Your task to perform on an android device: install app "Google Calendar" Image 0: 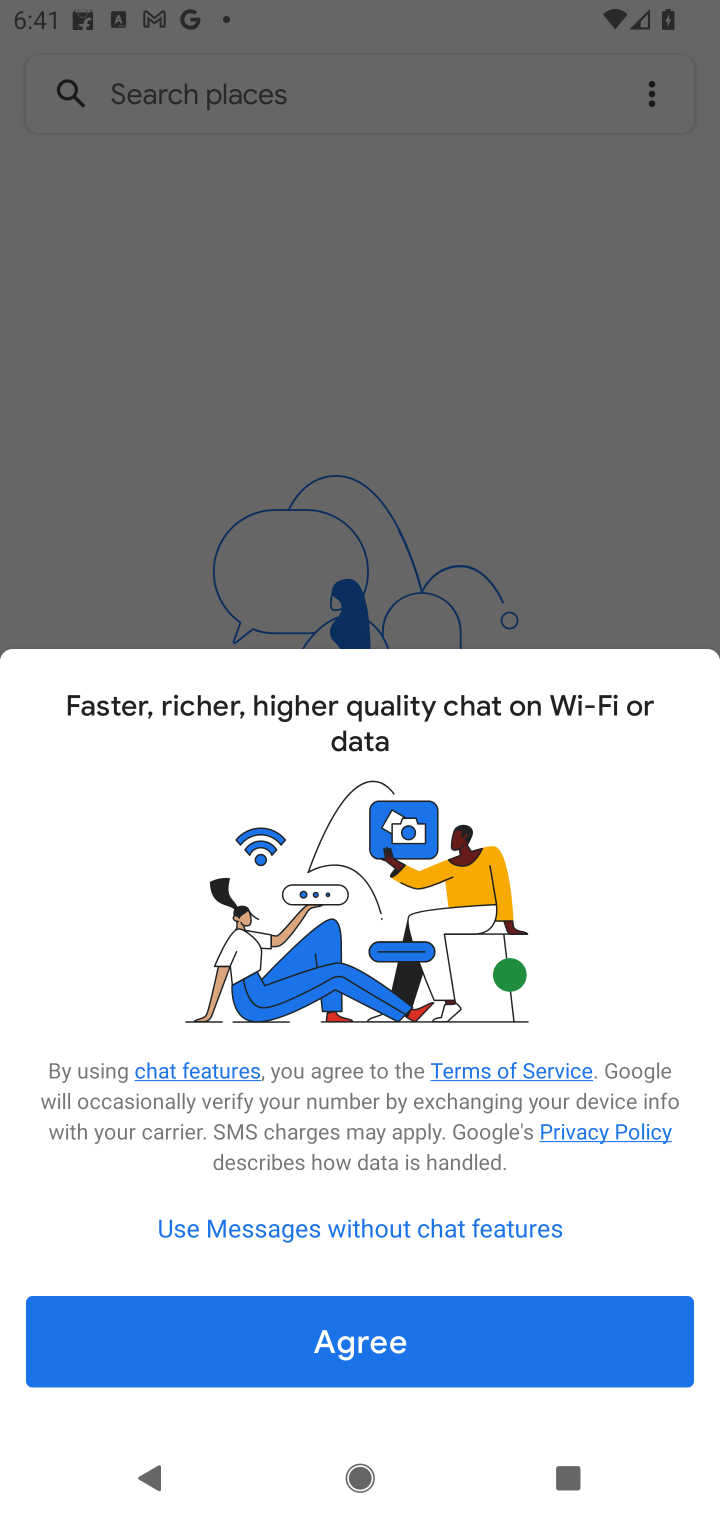
Step 0: press home button
Your task to perform on an android device: install app "Google Calendar" Image 1: 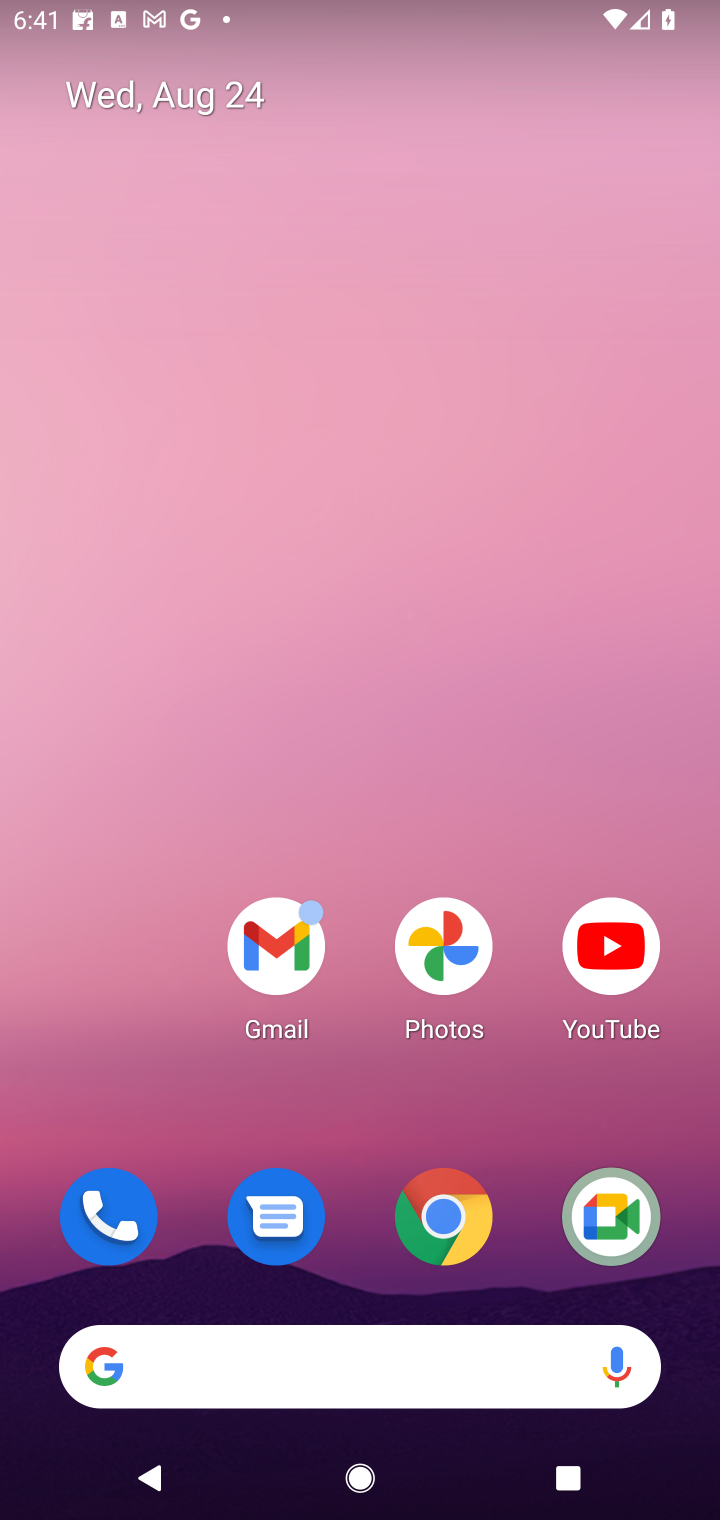
Step 1: drag from (362, 1099) to (440, 190)
Your task to perform on an android device: install app "Google Calendar" Image 2: 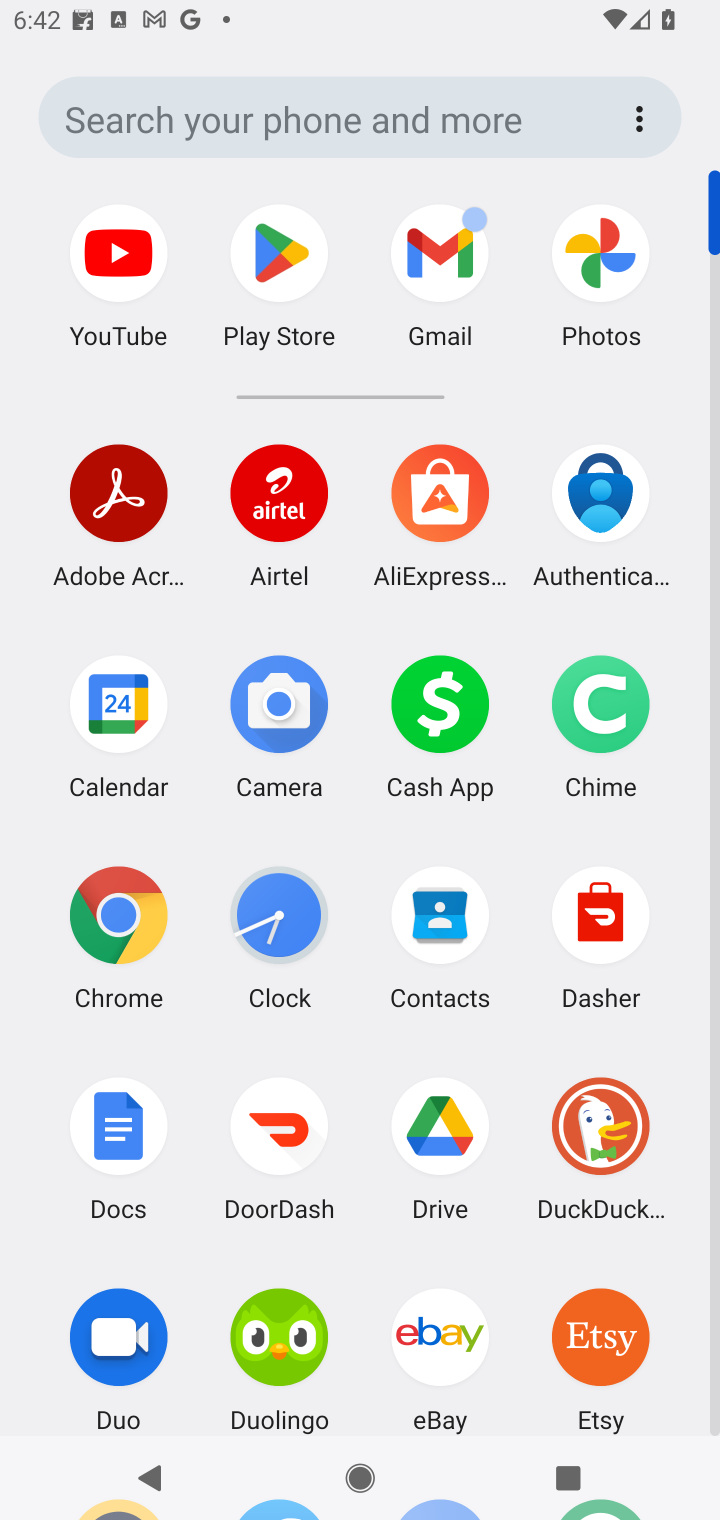
Step 2: click (283, 244)
Your task to perform on an android device: install app "Google Calendar" Image 3: 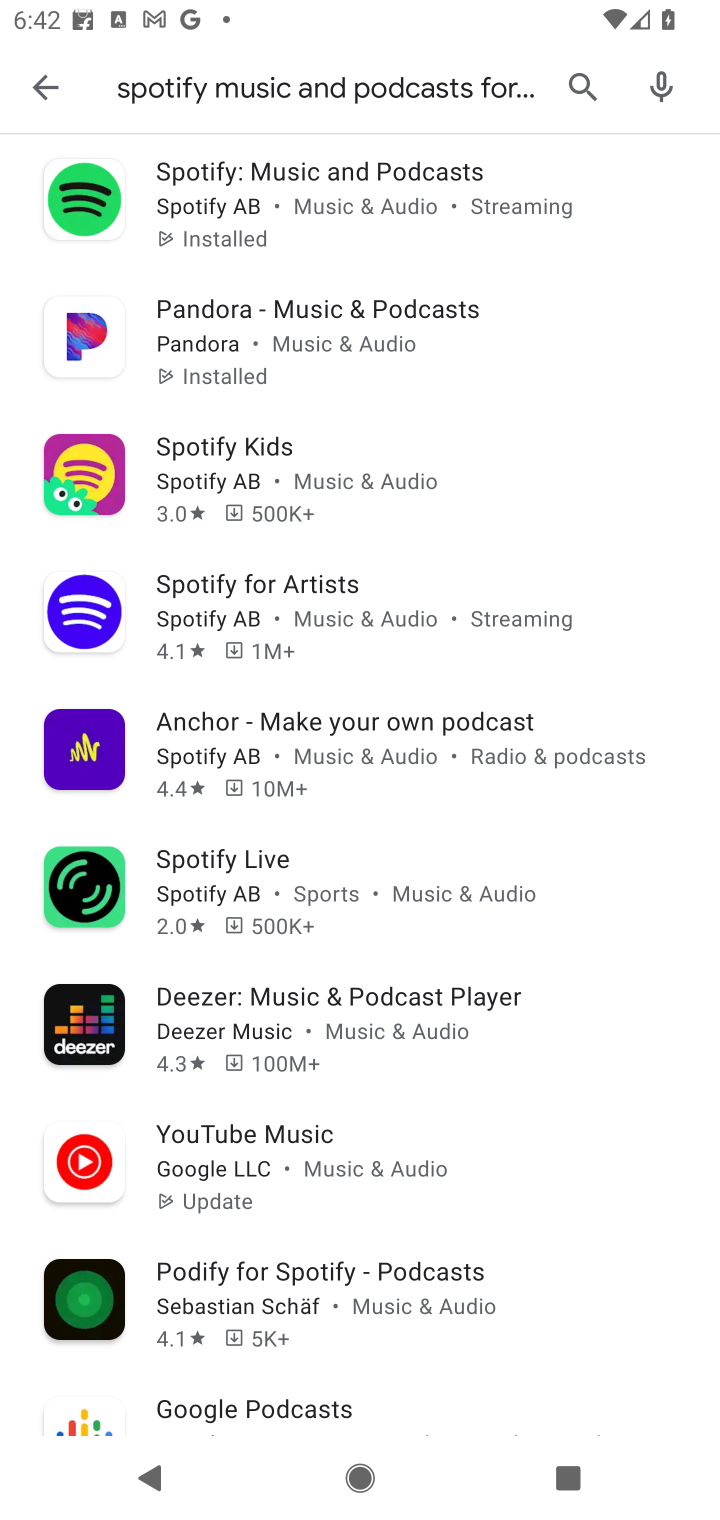
Step 3: click (566, 91)
Your task to perform on an android device: install app "Google Calendar" Image 4: 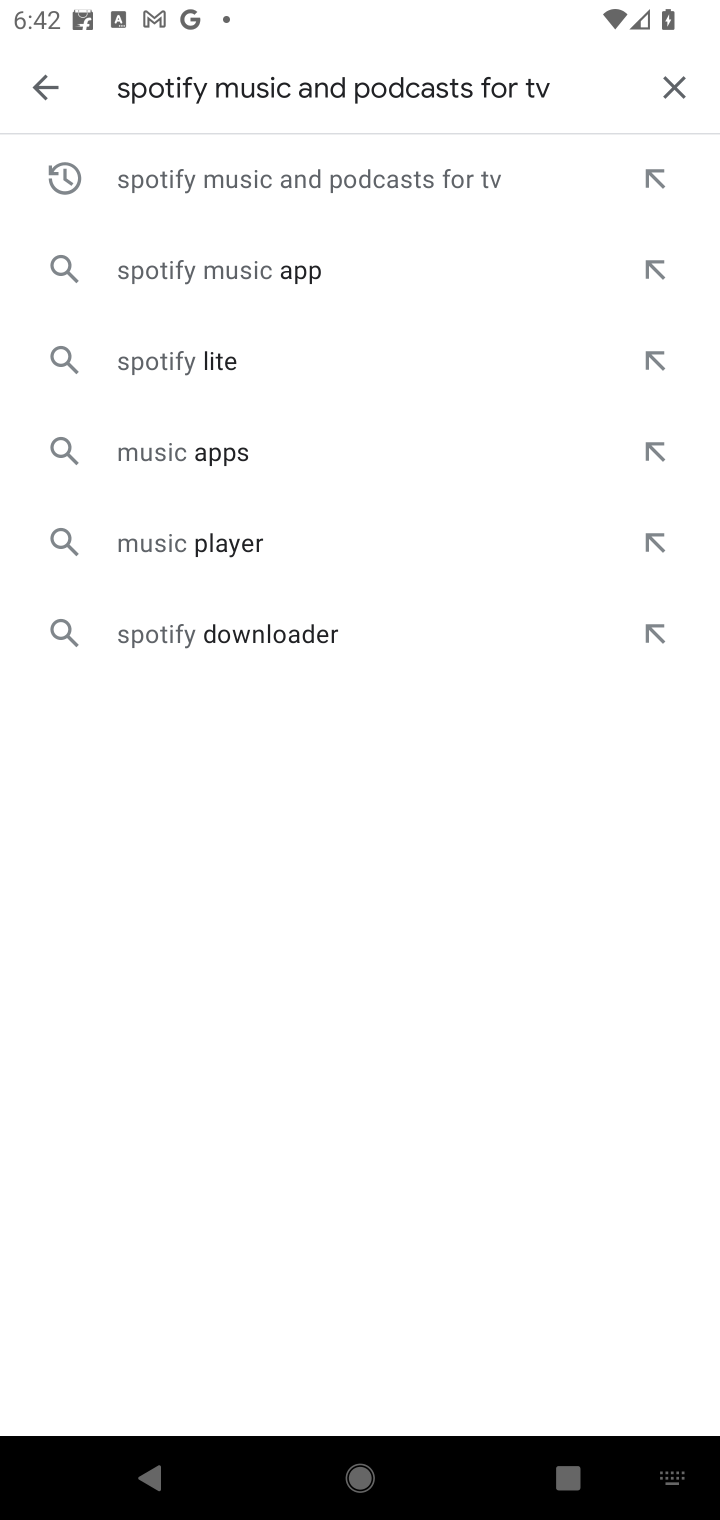
Step 4: click (680, 83)
Your task to perform on an android device: install app "Google Calendar" Image 5: 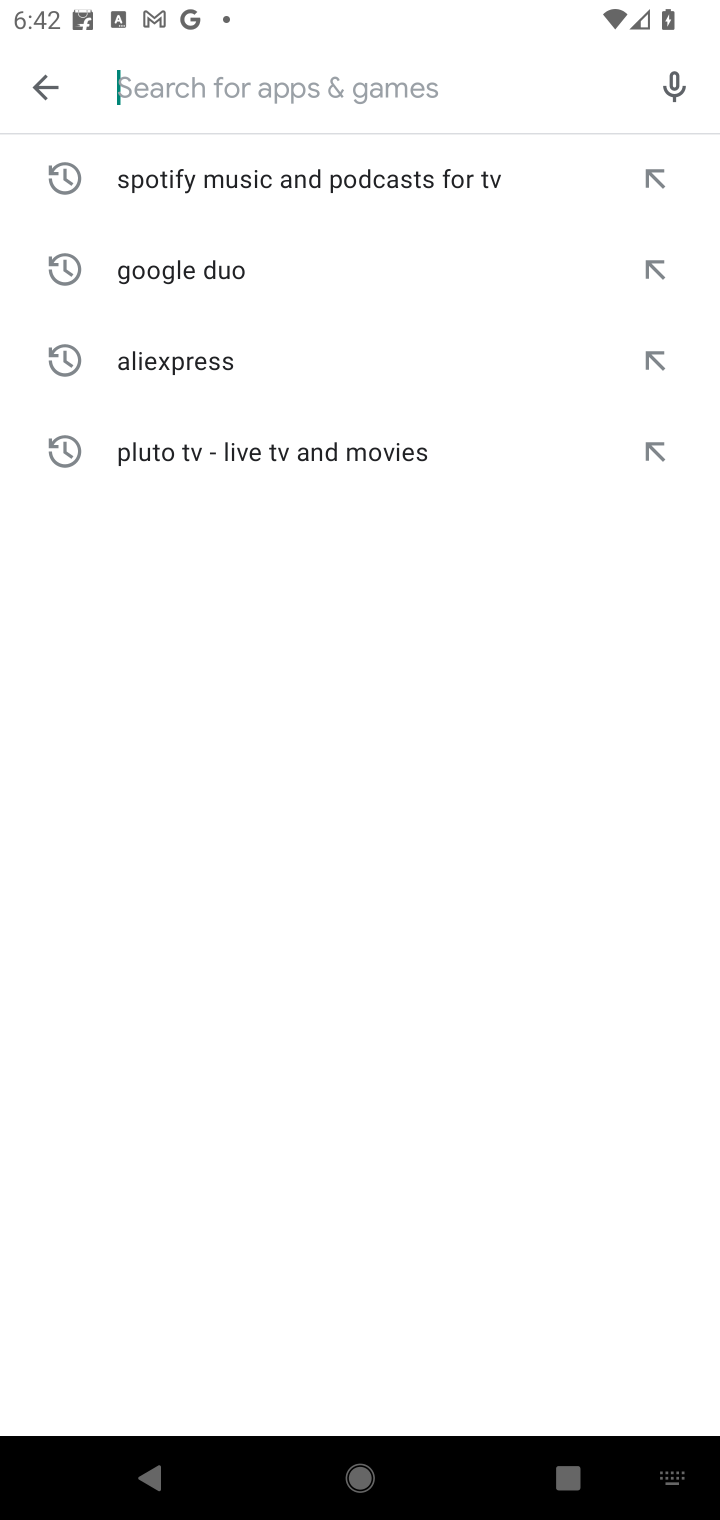
Step 5: type "Google Calendar"
Your task to perform on an android device: install app "Google Calendar" Image 6: 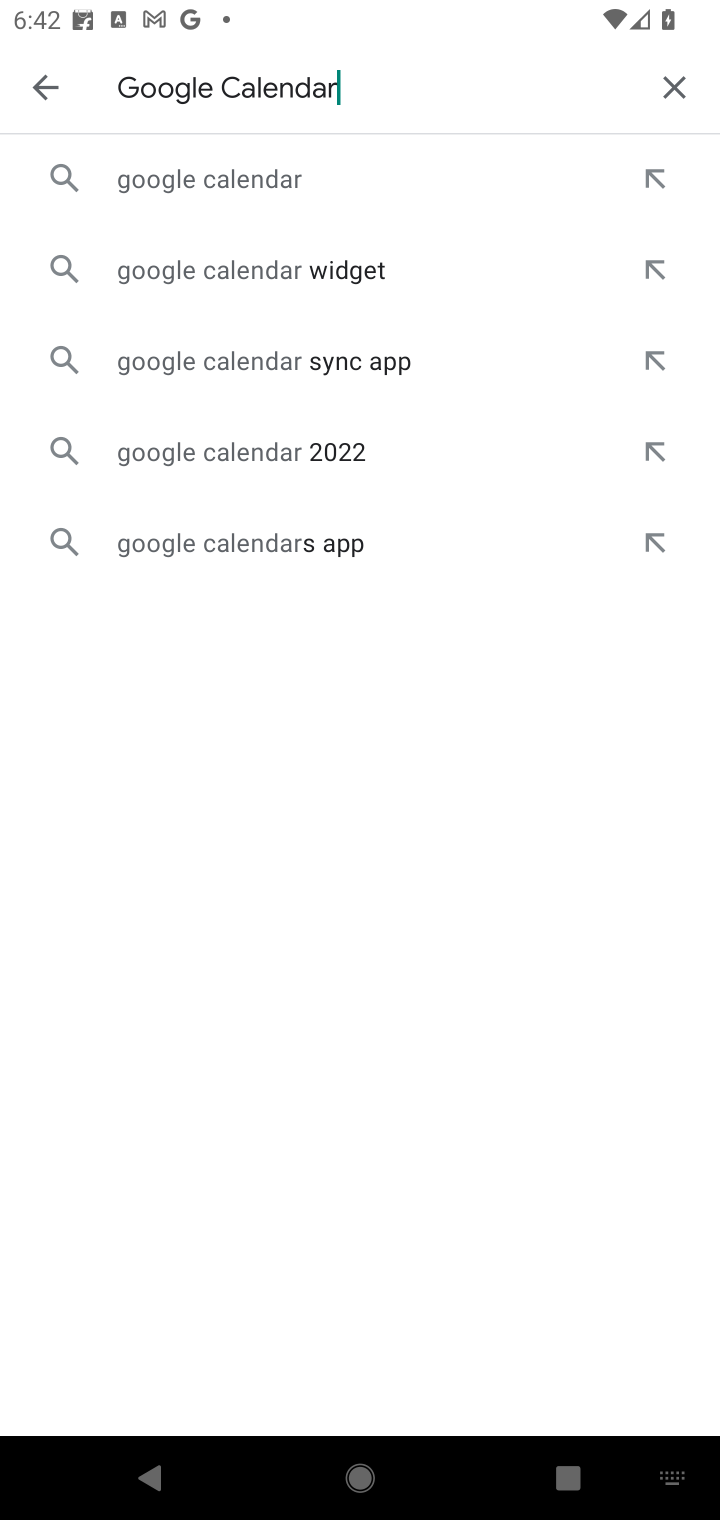
Step 6: click (406, 166)
Your task to perform on an android device: install app "Google Calendar" Image 7: 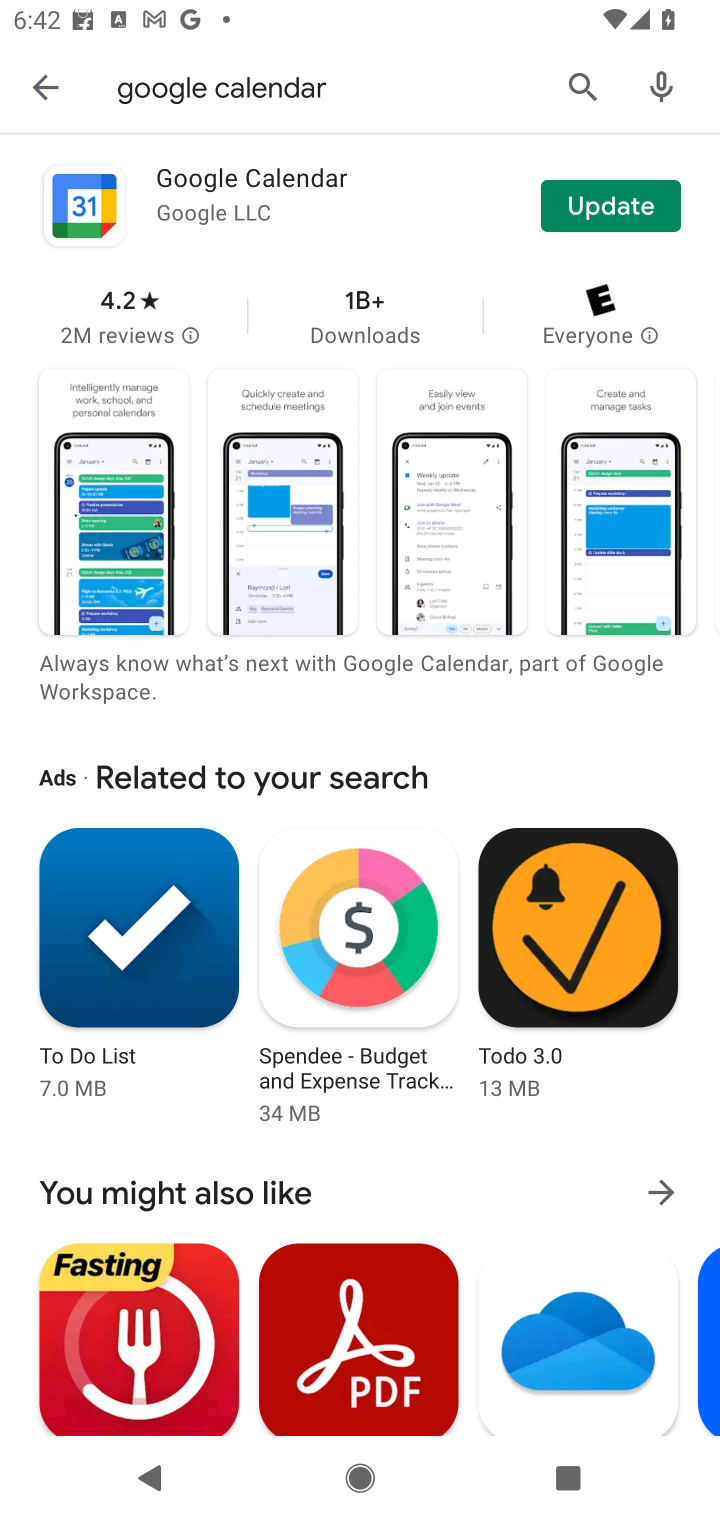
Step 7: task complete